Your task to perform on an android device: open app "Mercado Libre" Image 0: 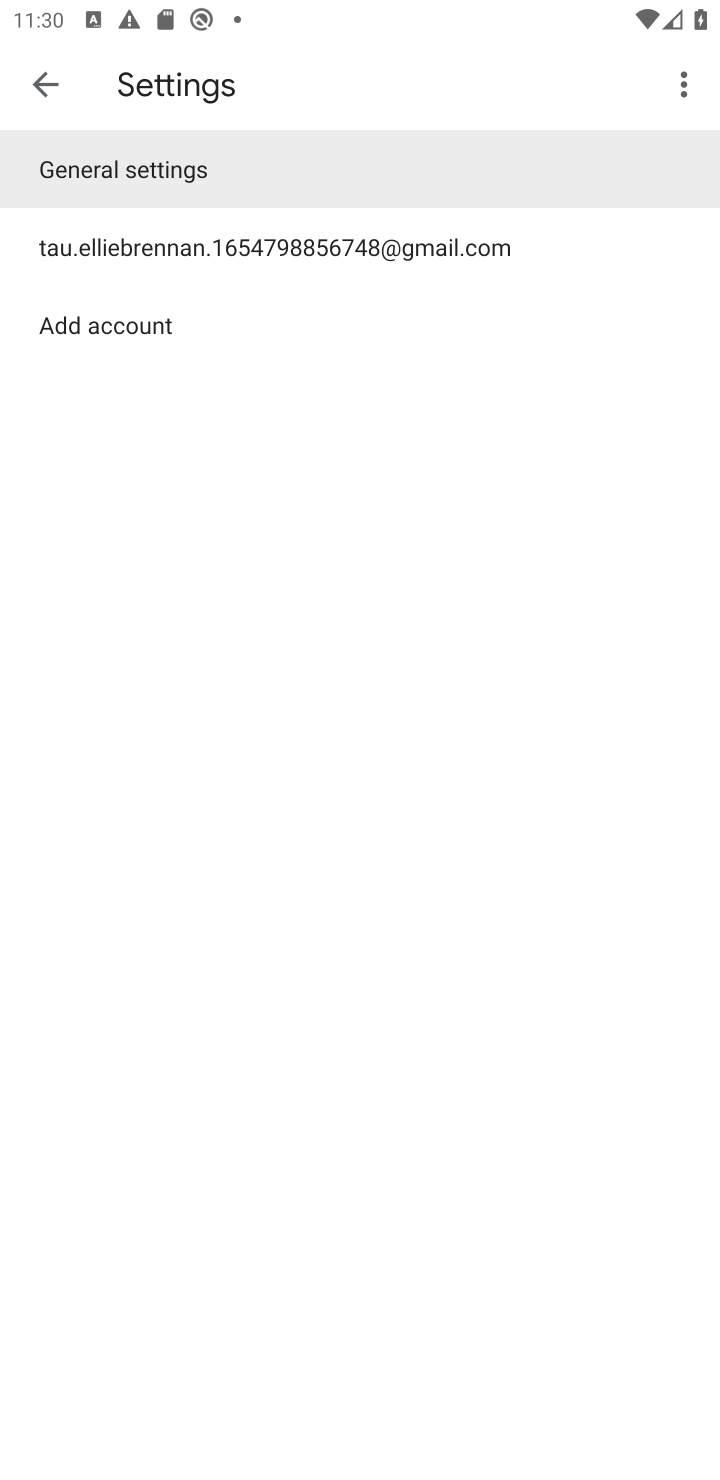
Step 0: press home button
Your task to perform on an android device: open app "Mercado Libre" Image 1: 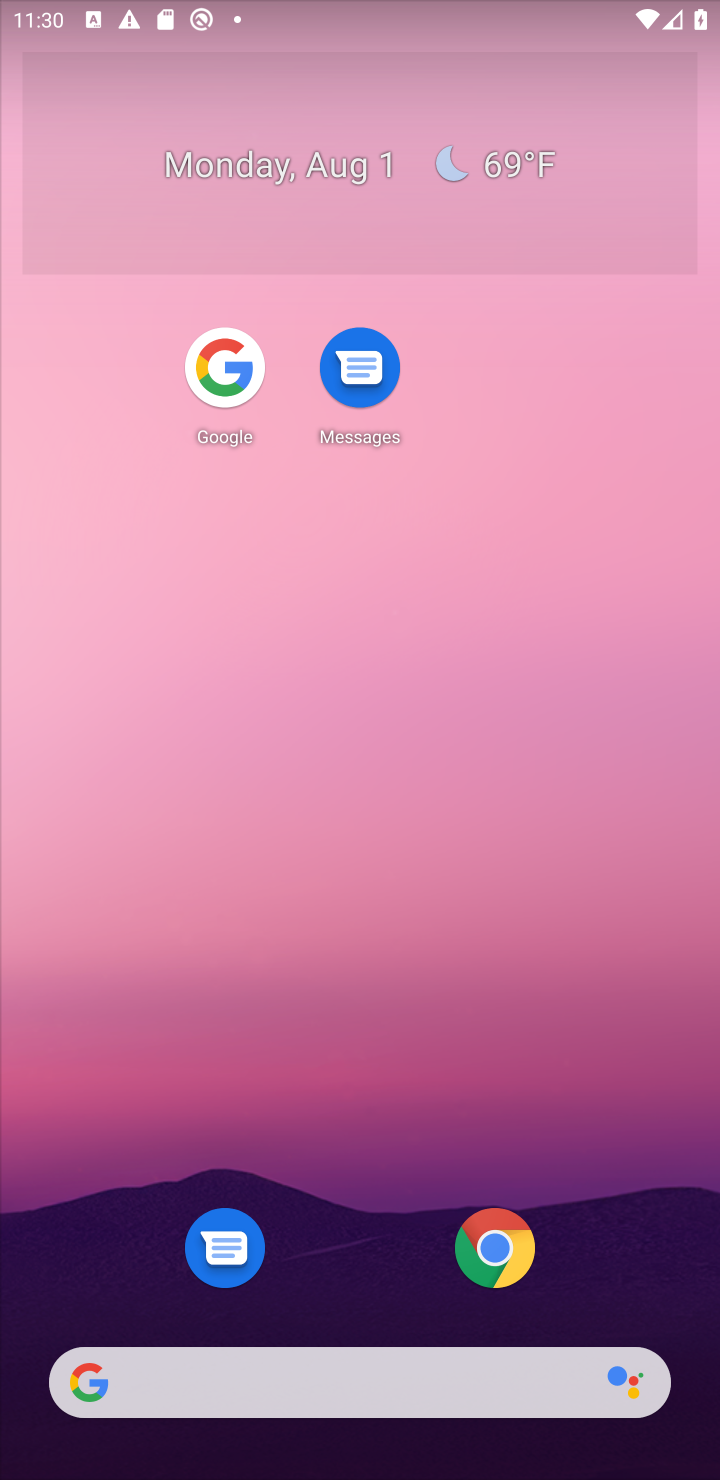
Step 1: drag from (501, 961) to (550, 207)
Your task to perform on an android device: open app "Mercado Libre" Image 2: 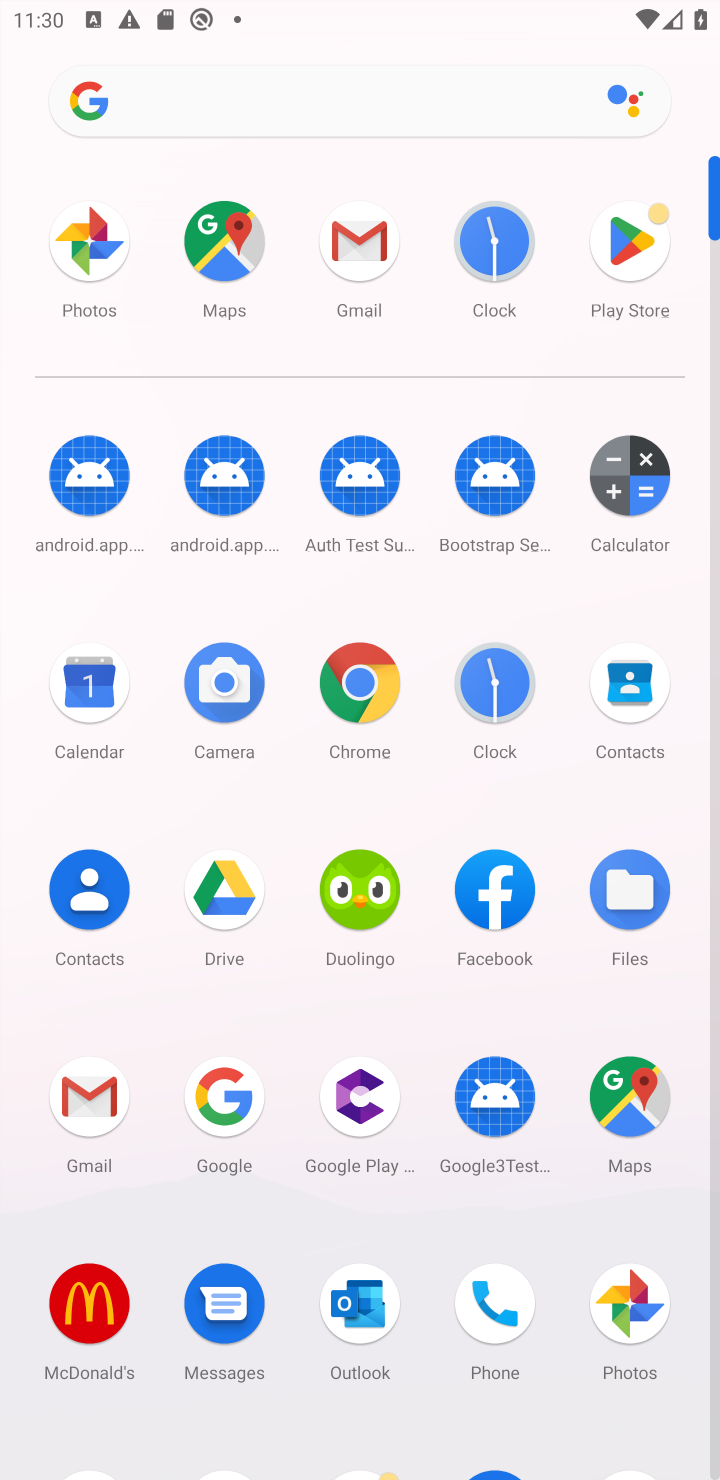
Step 2: drag from (293, 1199) to (375, 568)
Your task to perform on an android device: open app "Mercado Libre" Image 3: 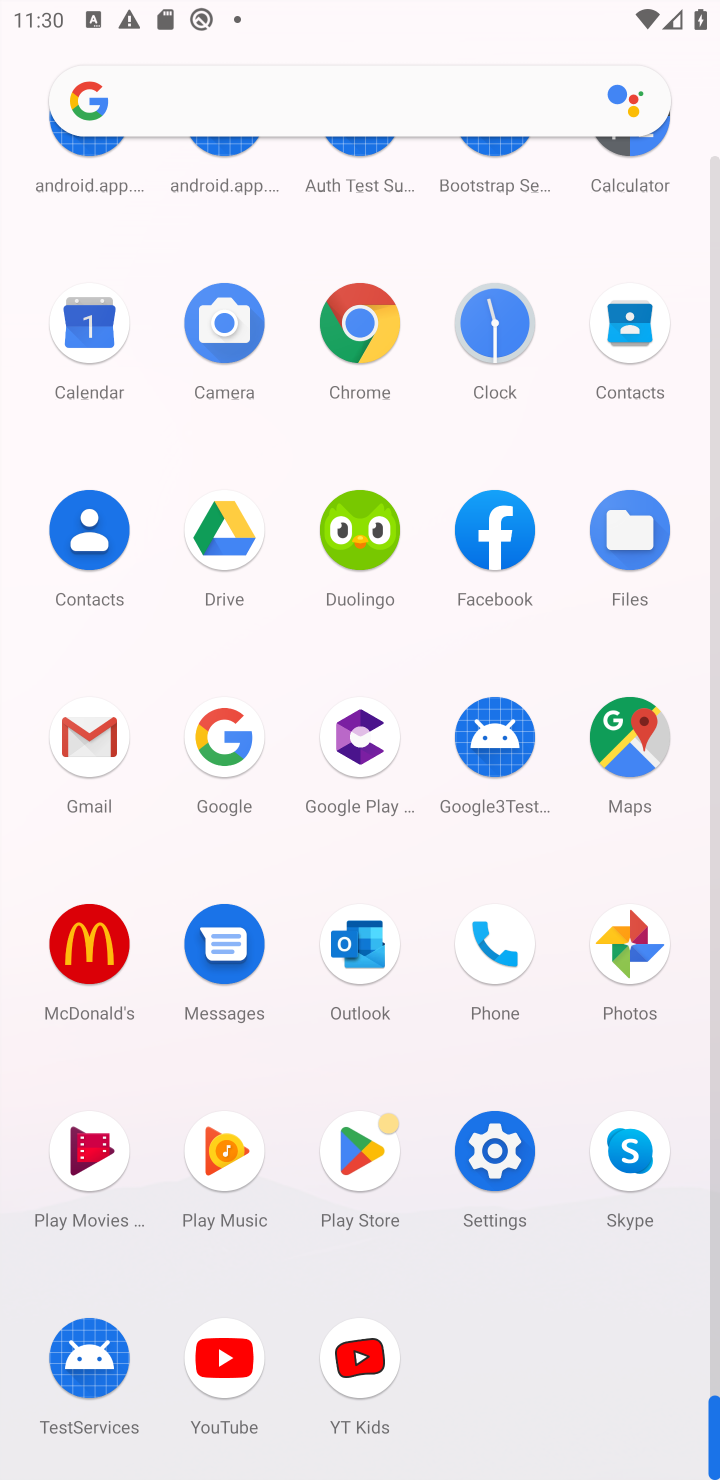
Step 3: click (363, 1140)
Your task to perform on an android device: open app "Mercado Libre" Image 4: 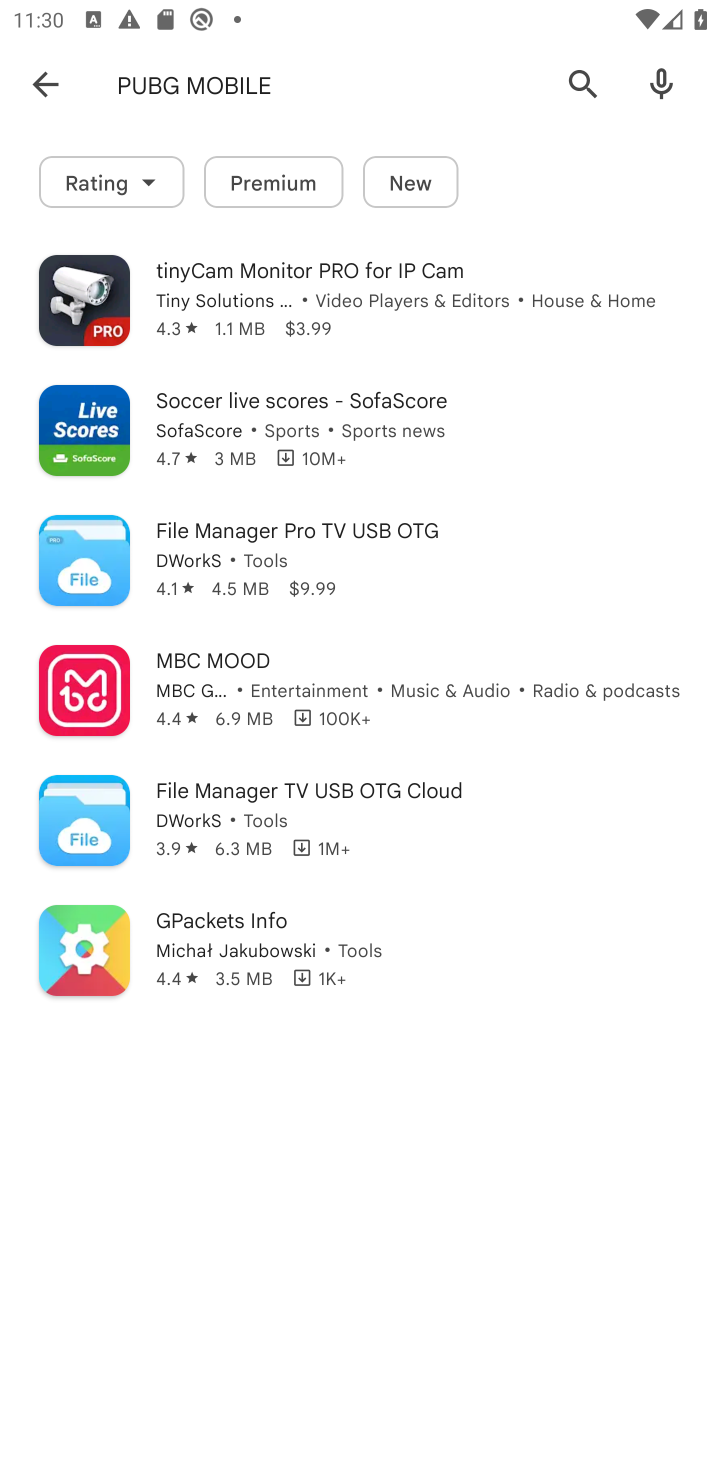
Step 4: click (372, 66)
Your task to perform on an android device: open app "Mercado Libre" Image 5: 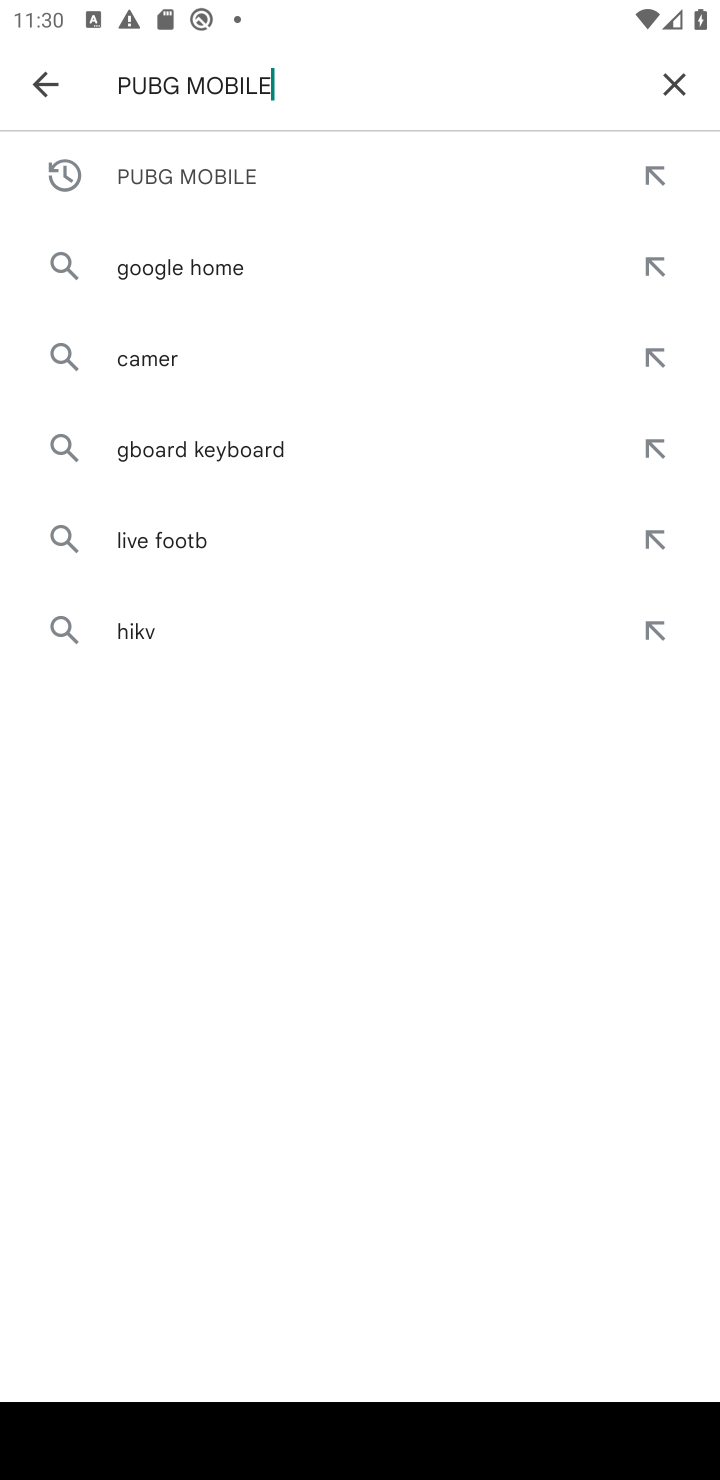
Step 5: click (667, 79)
Your task to perform on an android device: open app "Mercado Libre" Image 6: 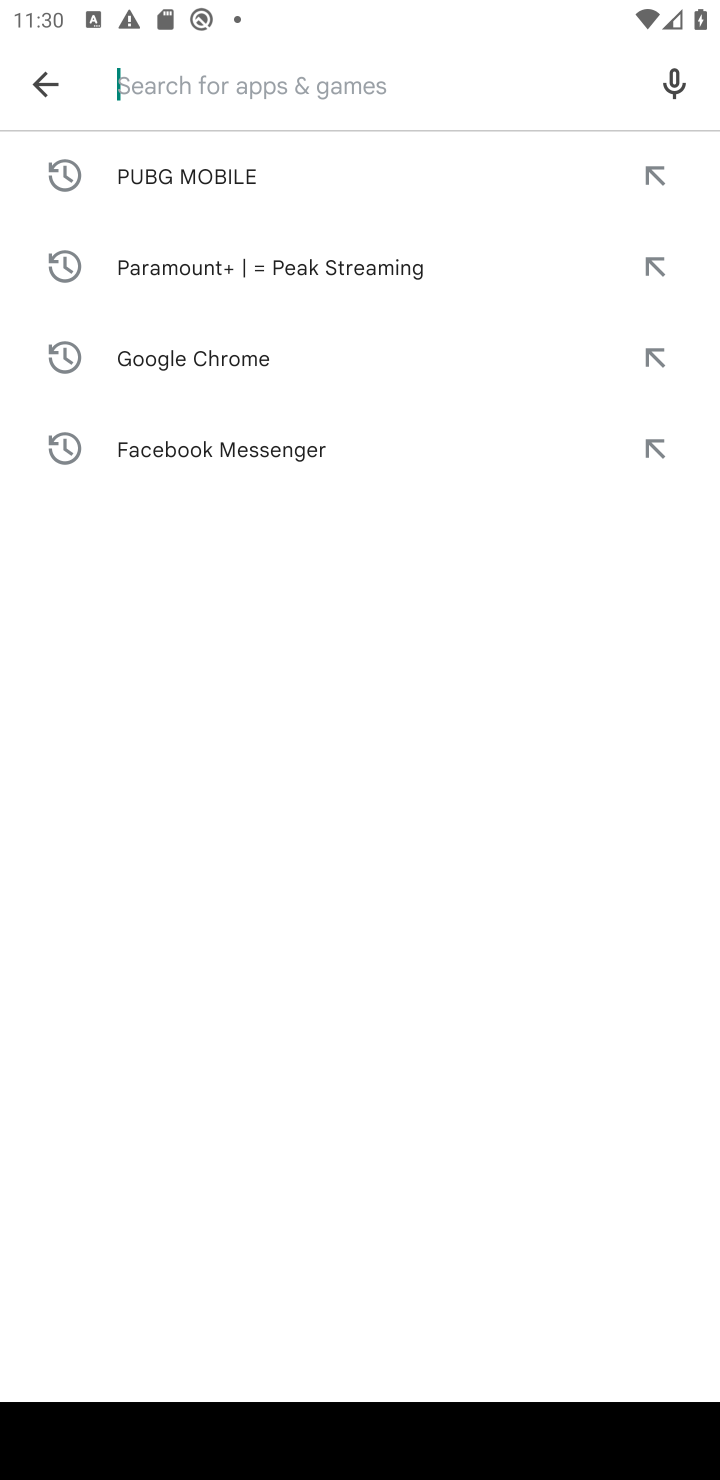
Step 6: type "Mercado Libre"
Your task to perform on an android device: open app "Mercado Libre" Image 7: 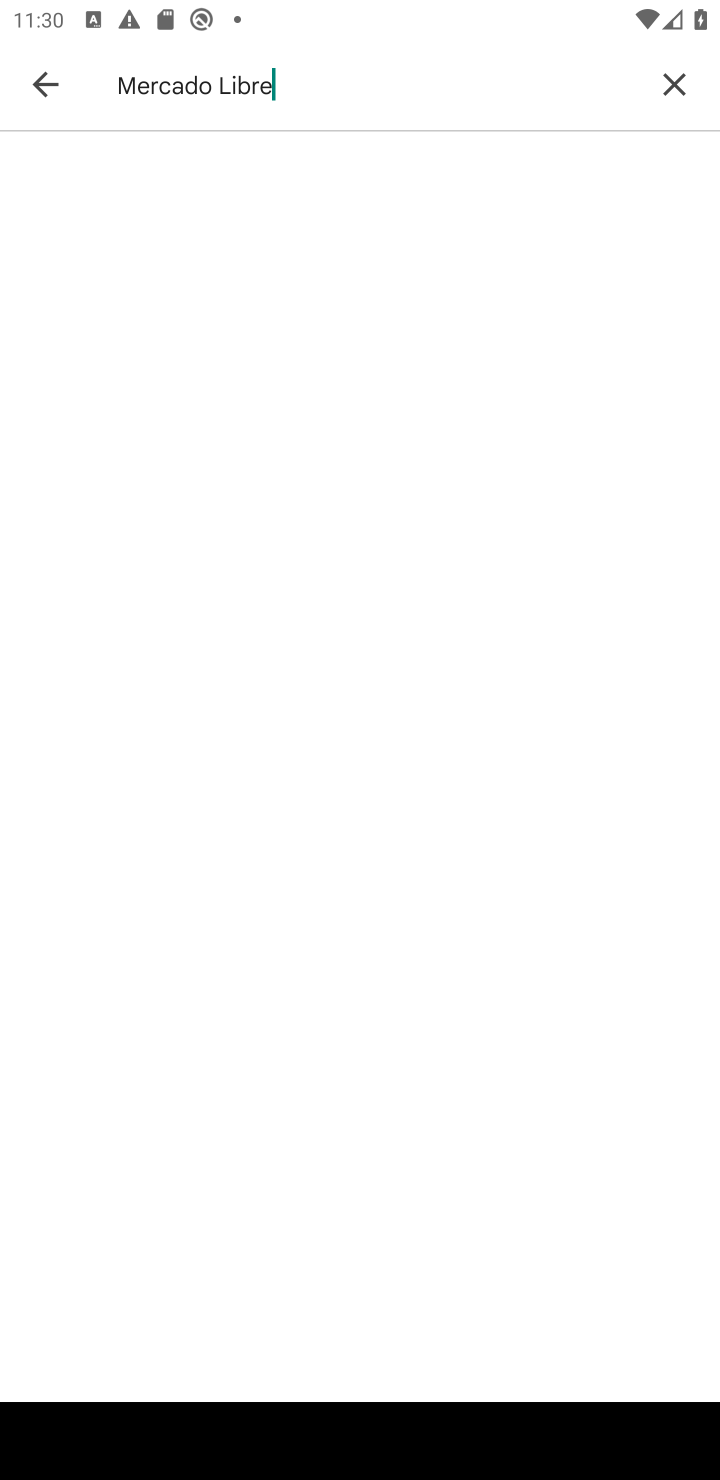
Step 7: press enter
Your task to perform on an android device: open app "Mercado Libre" Image 8: 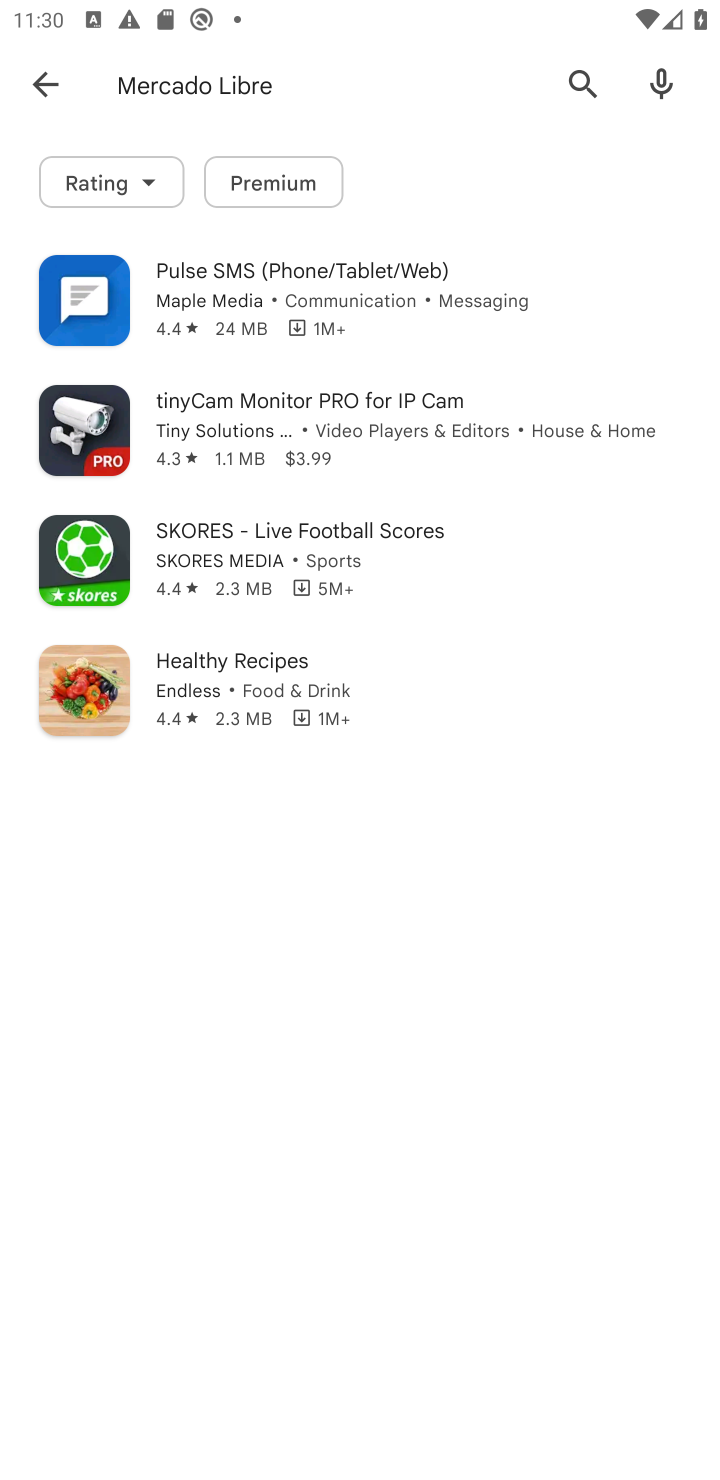
Step 8: task complete